Your task to perform on an android device: turn on notifications settings in the gmail app Image 0: 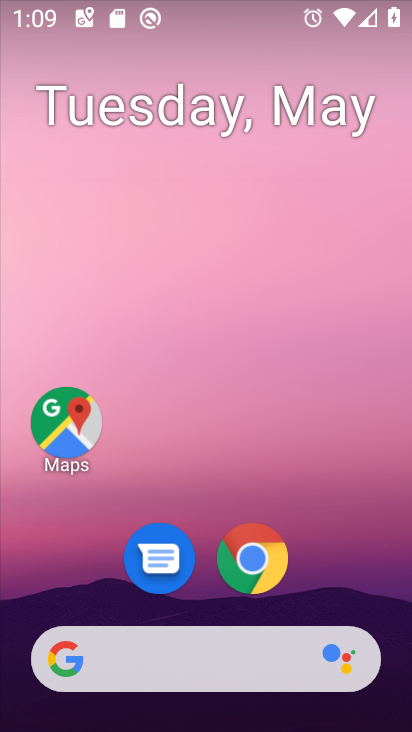
Step 0: drag from (353, 465) to (274, 108)
Your task to perform on an android device: turn on notifications settings in the gmail app Image 1: 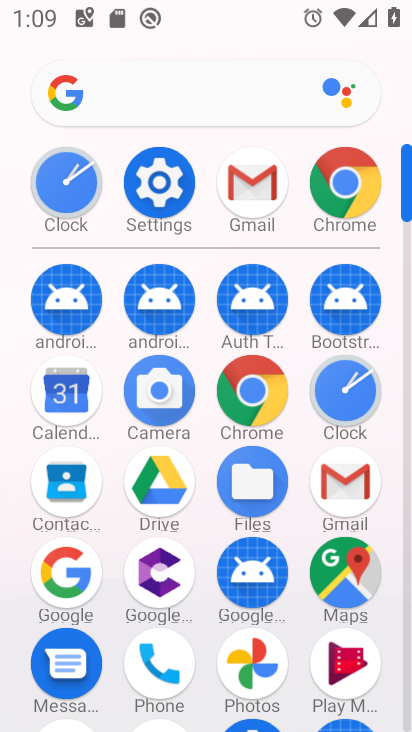
Step 1: click (255, 183)
Your task to perform on an android device: turn on notifications settings in the gmail app Image 2: 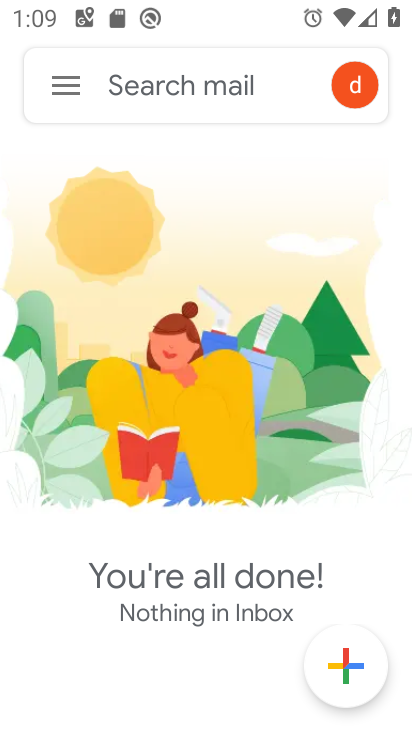
Step 2: click (65, 80)
Your task to perform on an android device: turn on notifications settings in the gmail app Image 3: 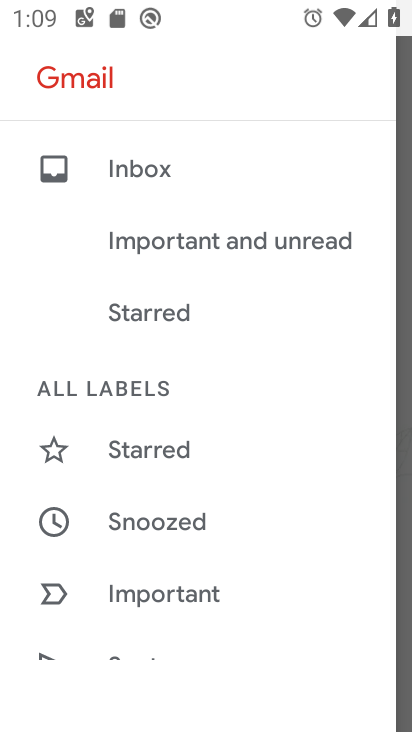
Step 3: drag from (194, 603) to (134, 196)
Your task to perform on an android device: turn on notifications settings in the gmail app Image 4: 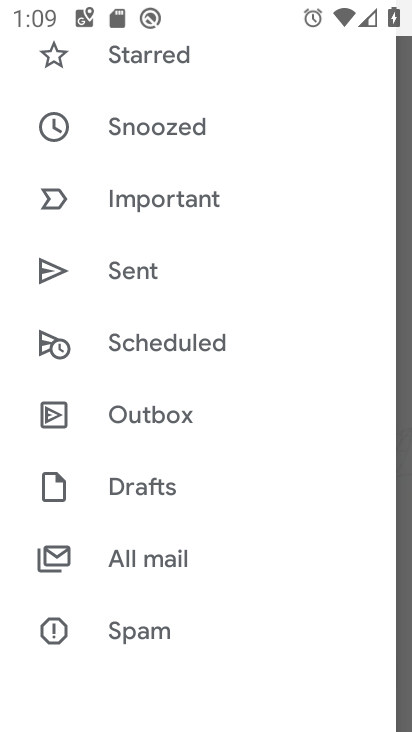
Step 4: drag from (180, 577) to (140, 233)
Your task to perform on an android device: turn on notifications settings in the gmail app Image 5: 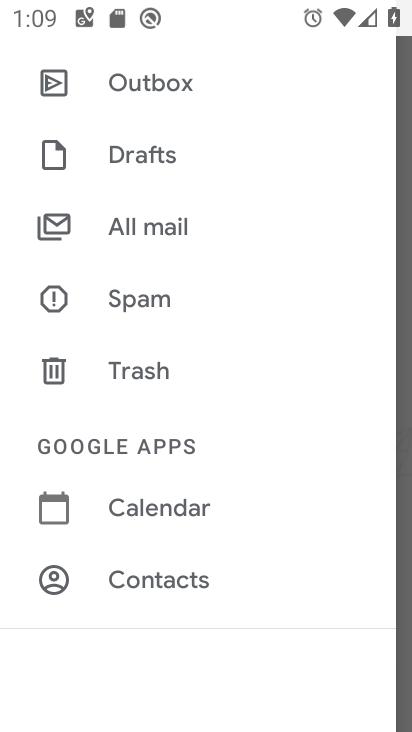
Step 5: drag from (186, 641) to (170, 287)
Your task to perform on an android device: turn on notifications settings in the gmail app Image 6: 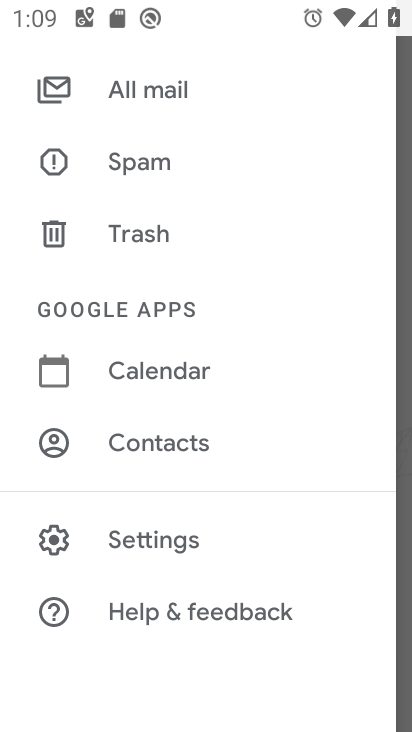
Step 6: click (181, 547)
Your task to perform on an android device: turn on notifications settings in the gmail app Image 7: 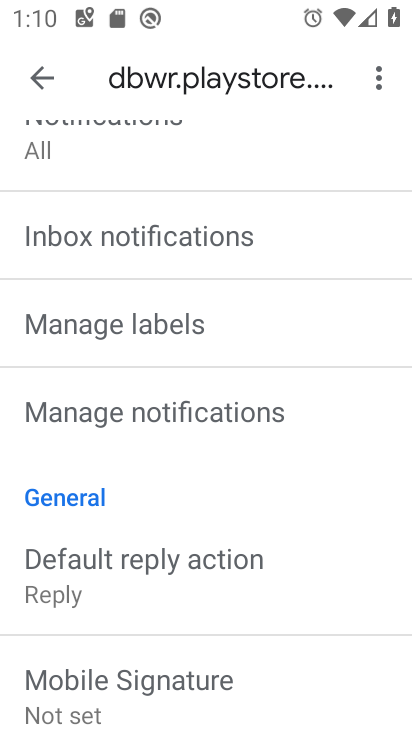
Step 7: click (193, 426)
Your task to perform on an android device: turn on notifications settings in the gmail app Image 8: 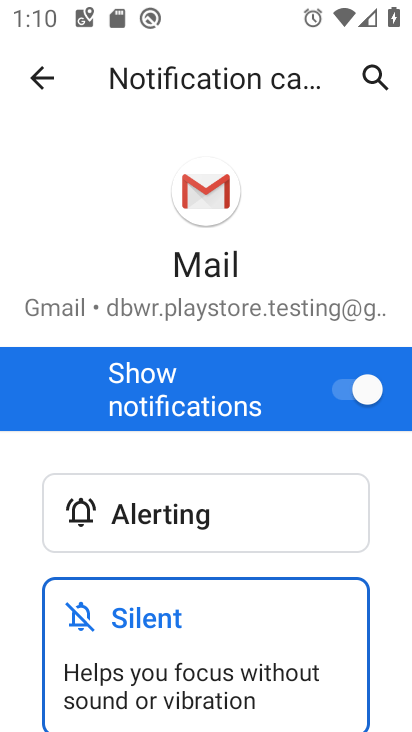
Step 8: task complete